Your task to perform on an android device: Open network settings Image 0: 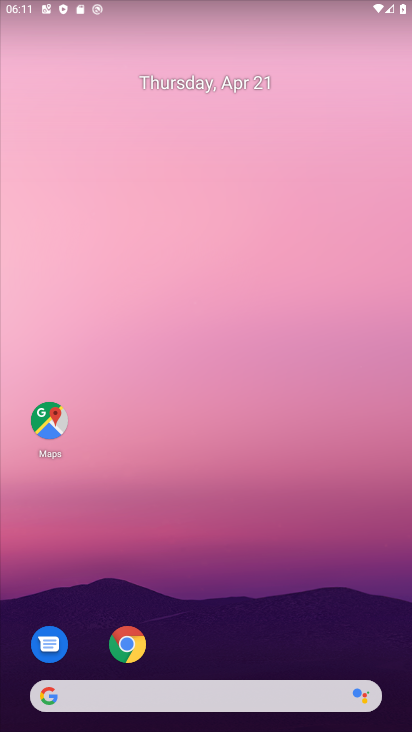
Step 0: drag from (326, 638) to (311, 61)
Your task to perform on an android device: Open network settings Image 1: 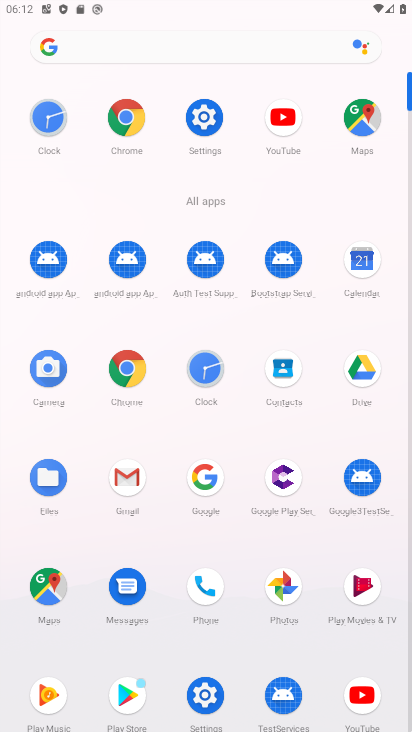
Step 1: click (200, 703)
Your task to perform on an android device: Open network settings Image 2: 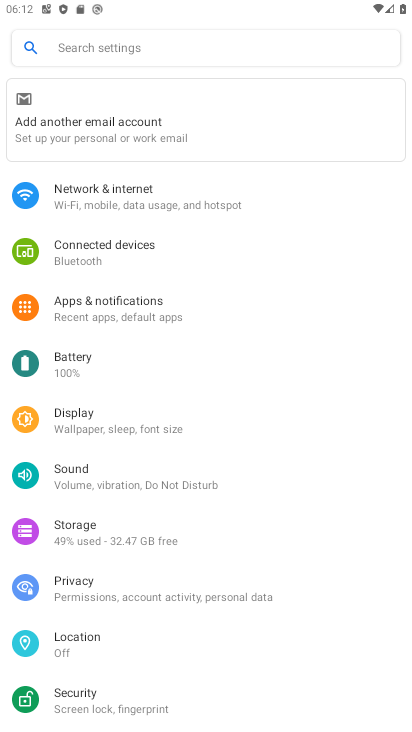
Step 2: click (144, 192)
Your task to perform on an android device: Open network settings Image 3: 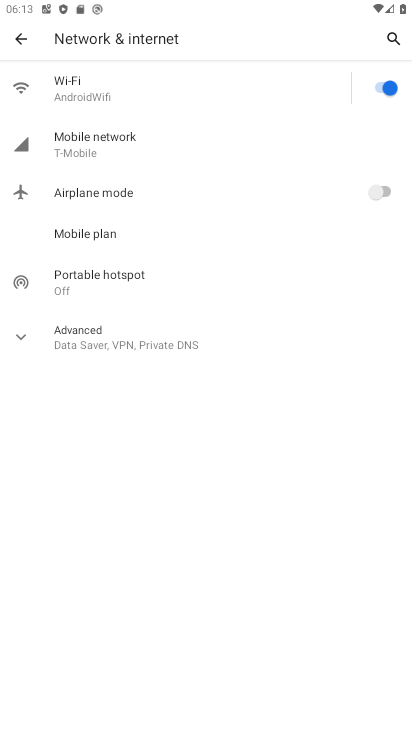
Step 3: task complete